Your task to perform on an android device: change text size in settings app Image 0: 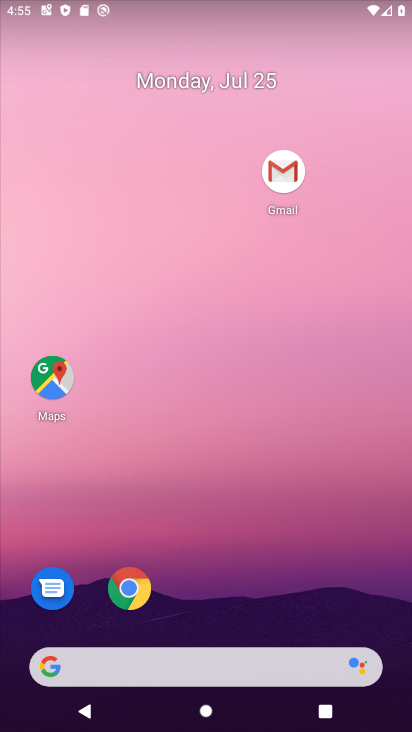
Step 0: drag from (294, 224) to (290, 72)
Your task to perform on an android device: change text size in settings app Image 1: 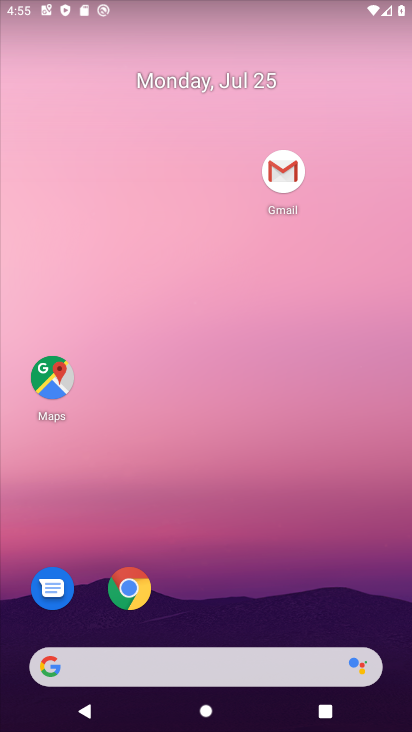
Step 1: drag from (285, 568) to (282, 72)
Your task to perform on an android device: change text size in settings app Image 2: 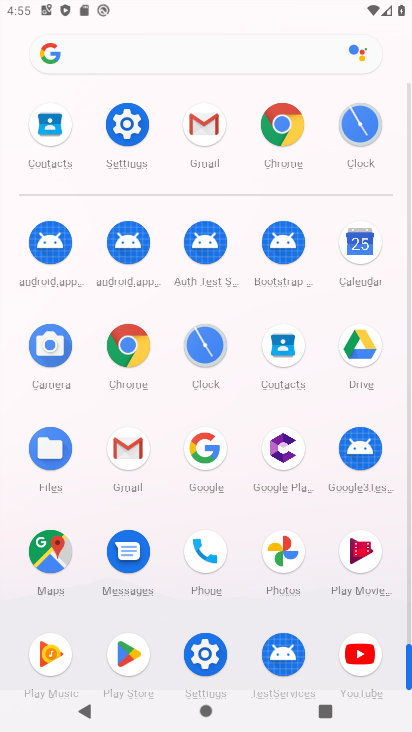
Step 2: click (137, 124)
Your task to perform on an android device: change text size in settings app Image 3: 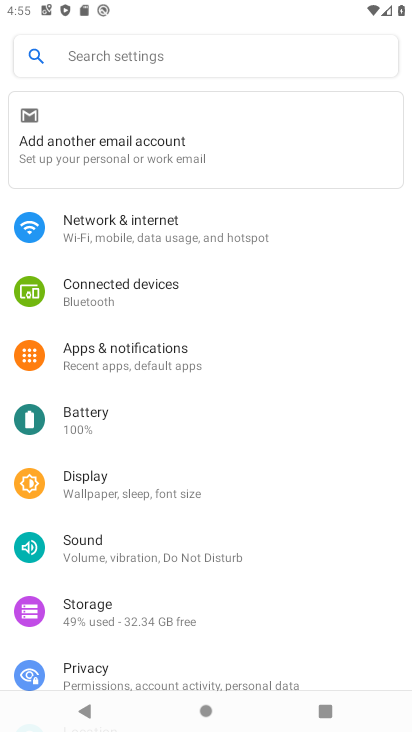
Step 3: click (147, 492)
Your task to perform on an android device: change text size in settings app Image 4: 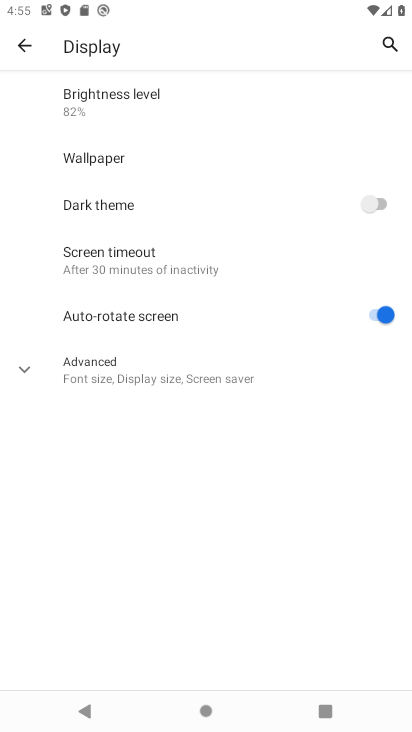
Step 4: click (143, 252)
Your task to perform on an android device: change text size in settings app Image 5: 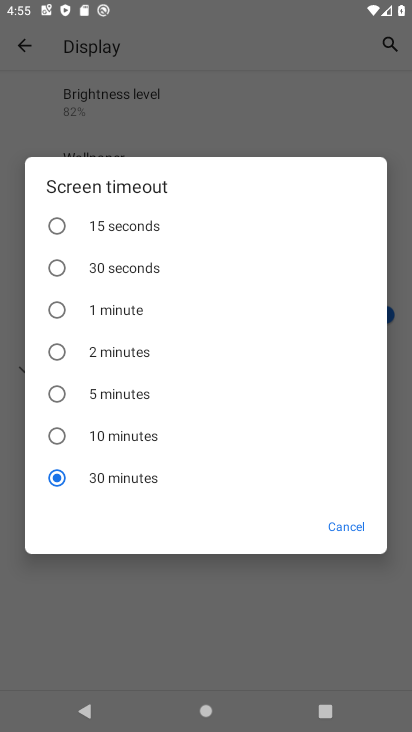
Step 5: click (96, 435)
Your task to perform on an android device: change text size in settings app Image 6: 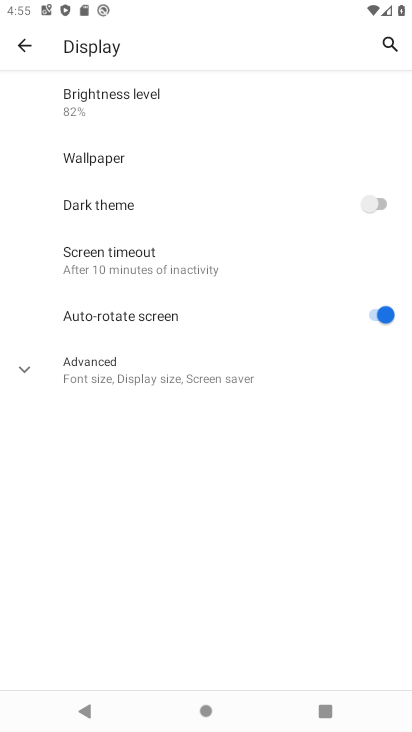
Step 6: task complete